Your task to perform on an android device: Open Google Chrome Image 0: 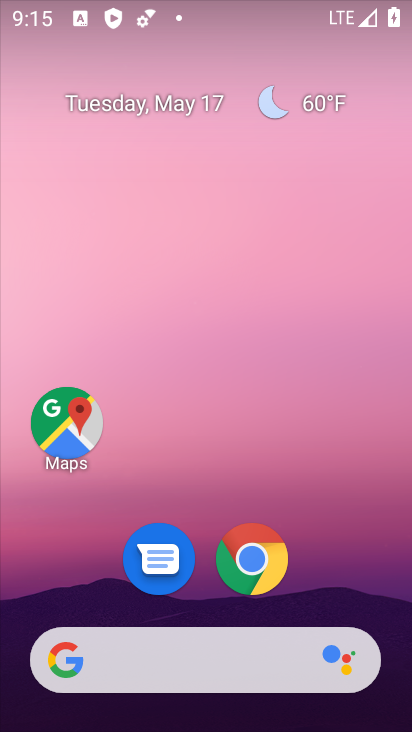
Step 0: click (251, 550)
Your task to perform on an android device: Open Google Chrome Image 1: 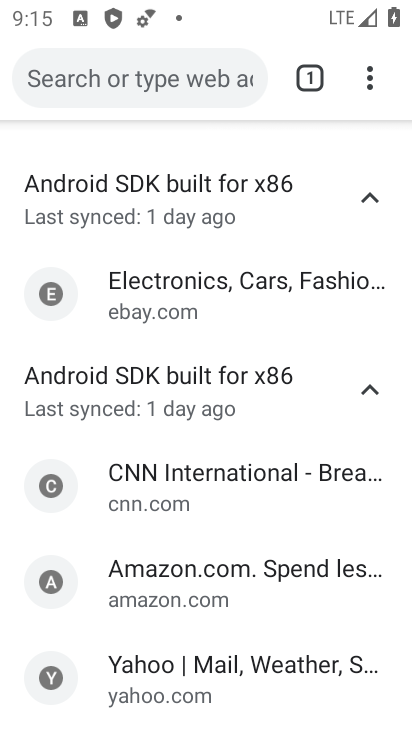
Step 1: task complete